Your task to perform on an android device: find which apps use the phone's location Image 0: 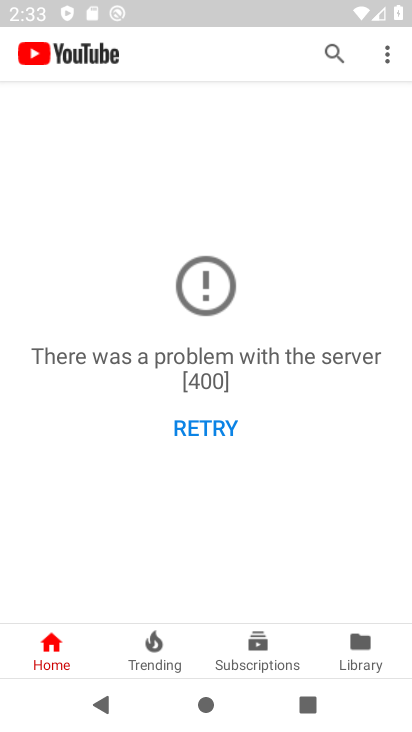
Step 0: press home button
Your task to perform on an android device: find which apps use the phone's location Image 1: 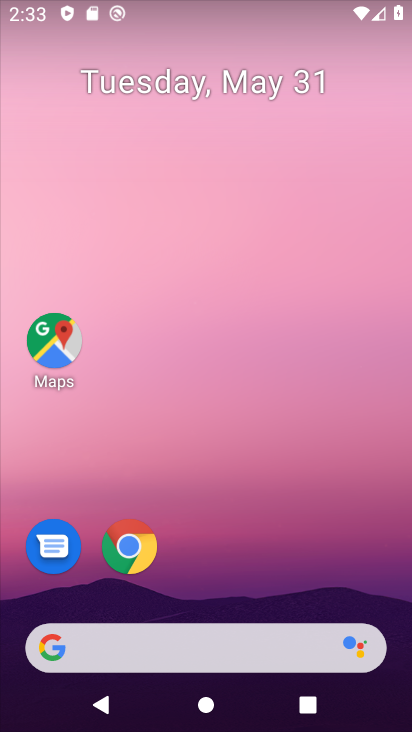
Step 1: drag from (254, 571) to (247, 26)
Your task to perform on an android device: find which apps use the phone's location Image 2: 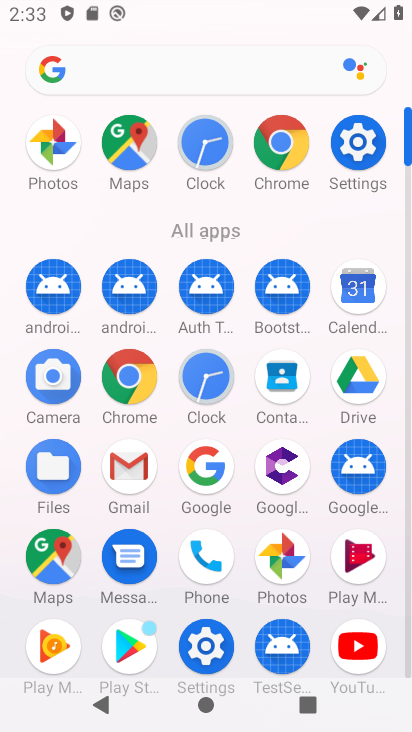
Step 2: click (354, 141)
Your task to perform on an android device: find which apps use the phone's location Image 3: 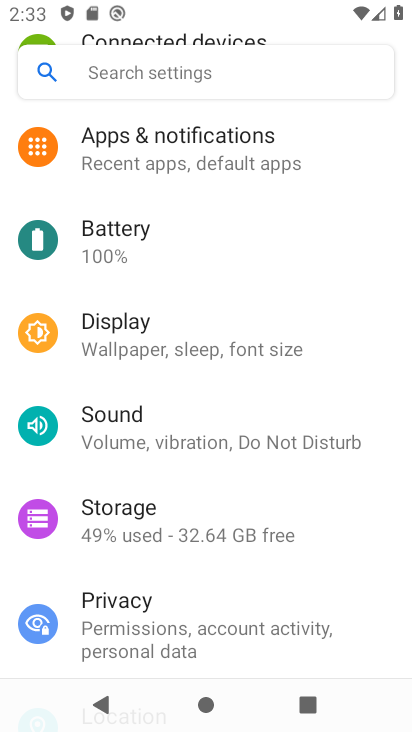
Step 3: drag from (220, 483) to (234, 214)
Your task to perform on an android device: find which apps use the phone's location Image 4: 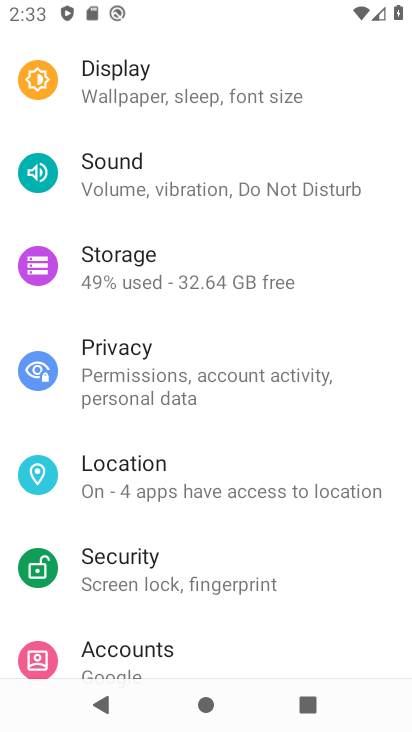
Step 4: click (204, 486)
Your task to perform on an android device: find which apps use the phone's location Image 5: 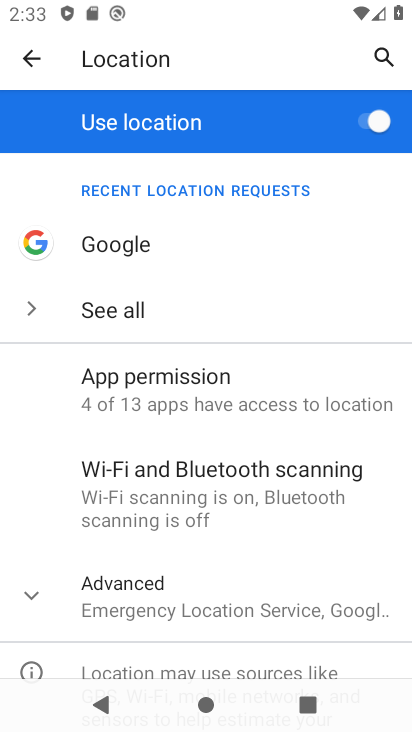
Step 5: click (257, 389)
Your task to perform on an android device: find which apps use the phone's location Image 6: 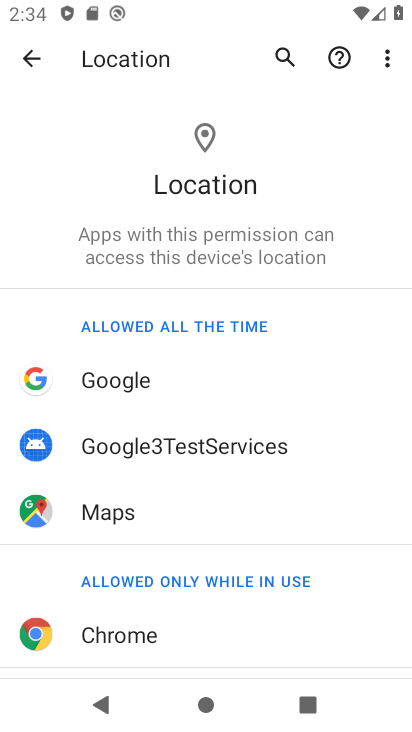
Step 6: task complete